Your task to perform on an android device: Open calendar and show me the third week of next month Image 0: 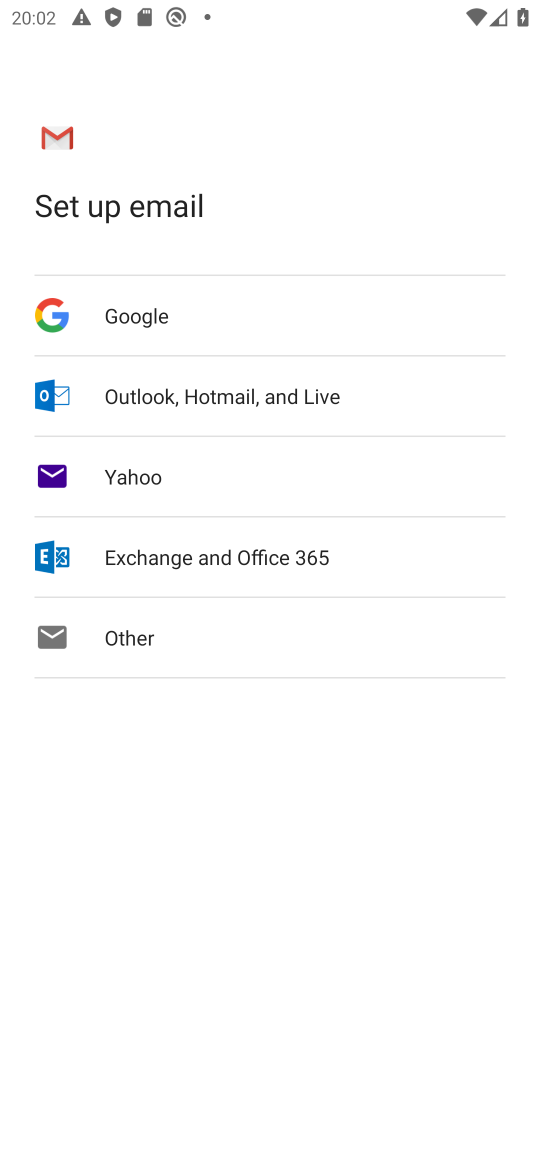
Step 0: press home button
Your task to perform on an android device: Open calendar and show me the third week of next month Image 1: 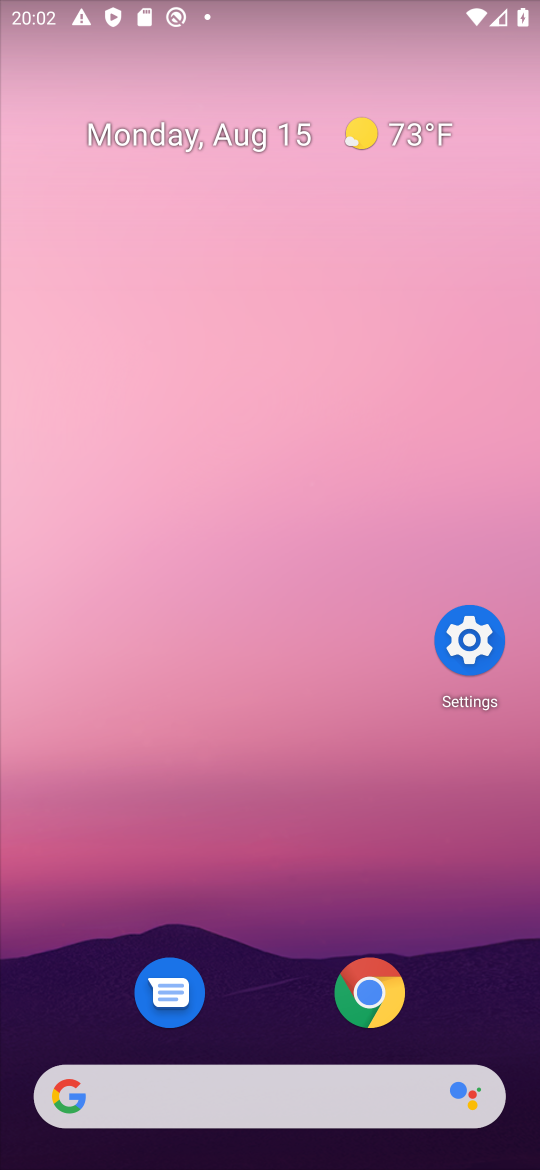
Step 1: drag from (297, 1071) to (428, 241)
Your task to perform on an android device: Open calendar and show me the third week of next month Image 2: 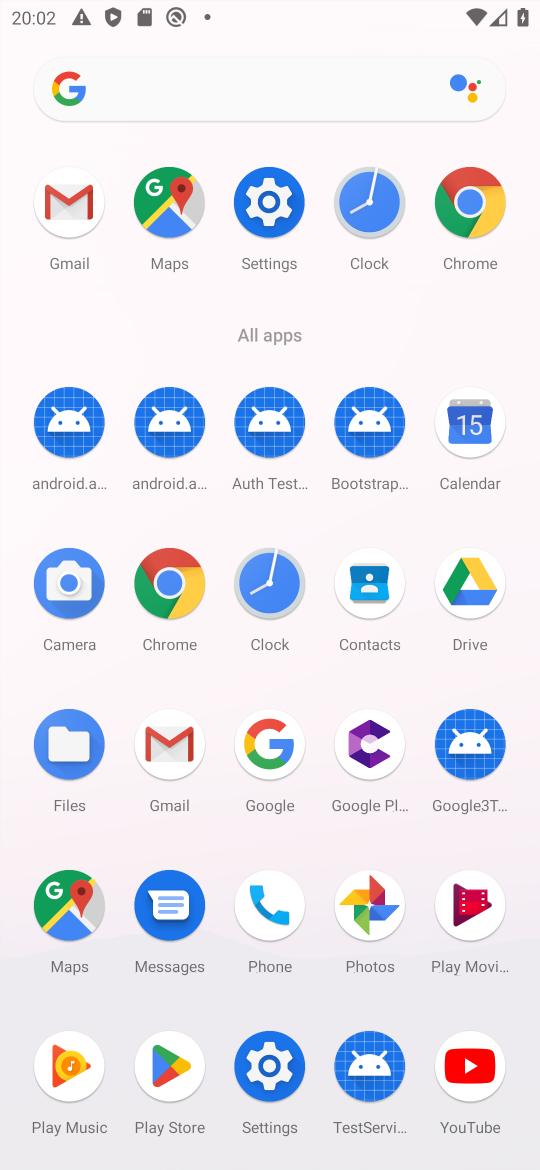
Step 2: click (468, 425)
Your task to perform on an android device: Open calendar and show me the third week of next month Image 3: 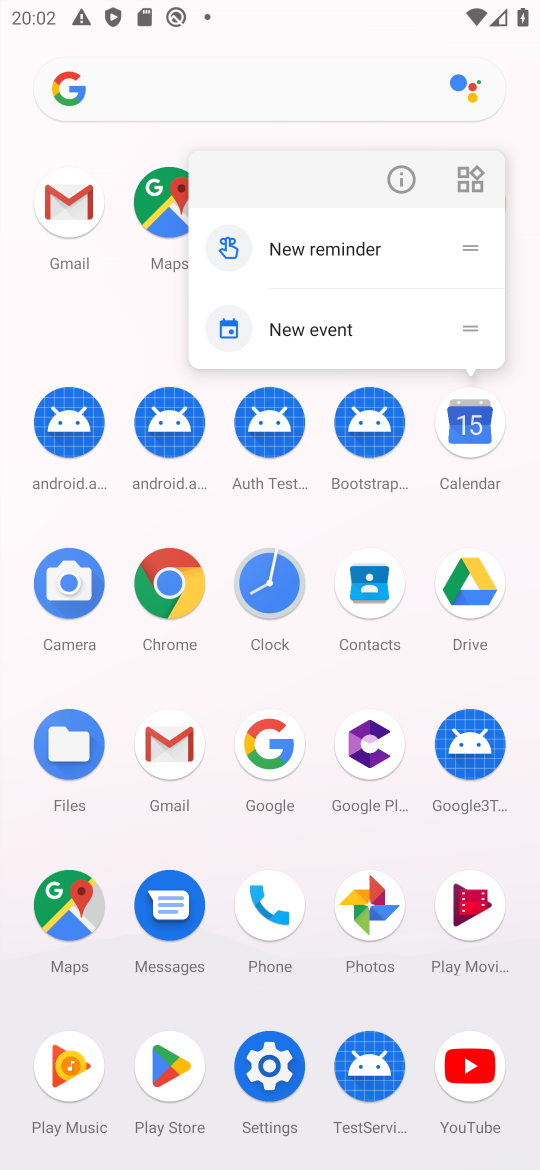
Step 3: click (468, 421)
Your task to perform on an android device: Open calendar and show me the third week of next month Image 4: 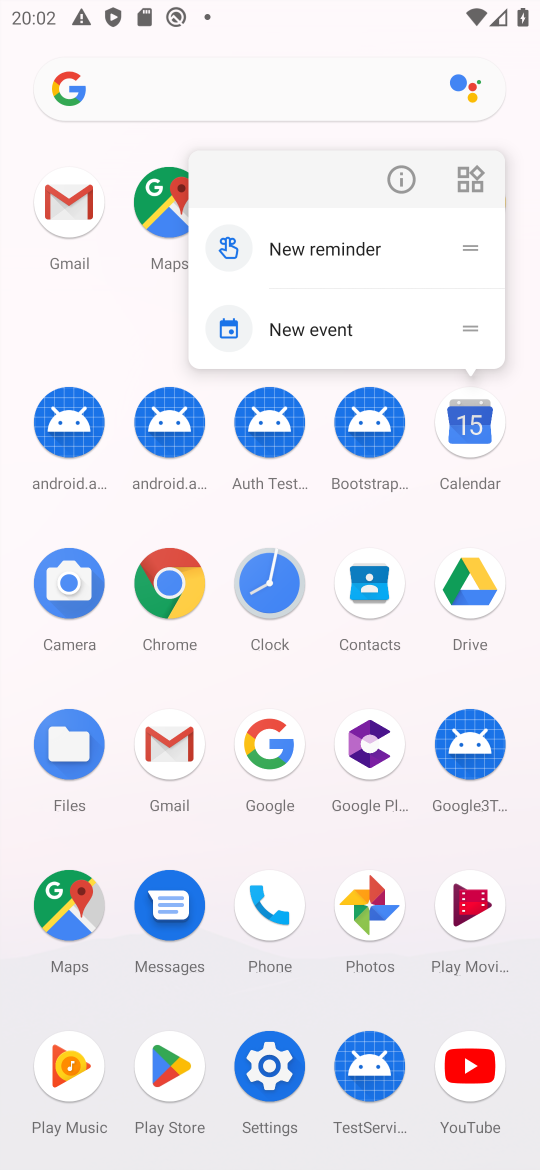
Step 4: click (468, 424)
Your task to perform on an android device: Open calendar and show me the third week of next month Image 5: 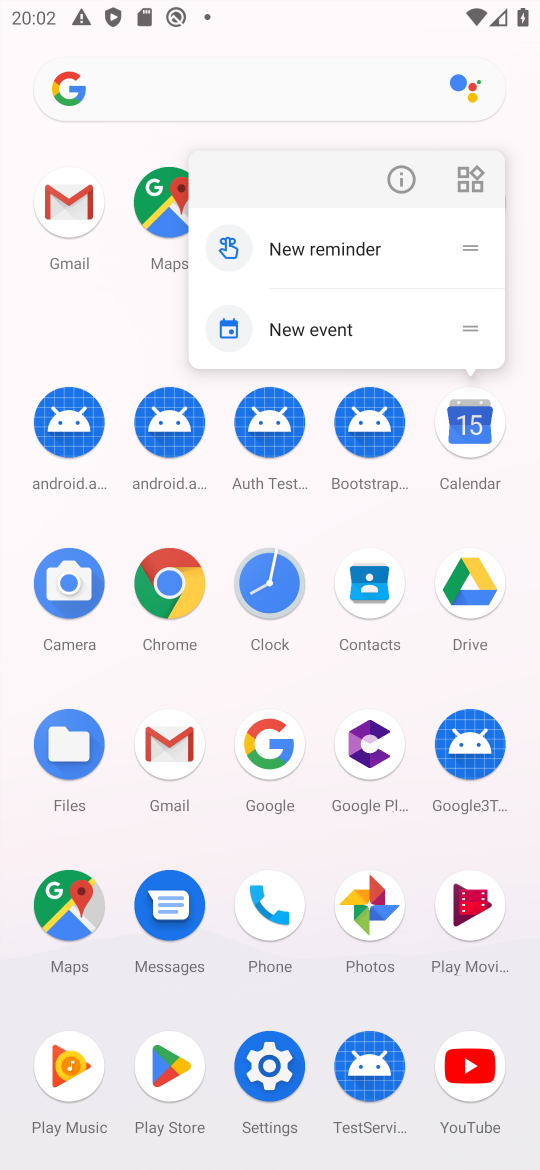
Step 5: click (481, 430)
Your task to perform on an android device: Open calendar and show me the third week of next month Image 6: 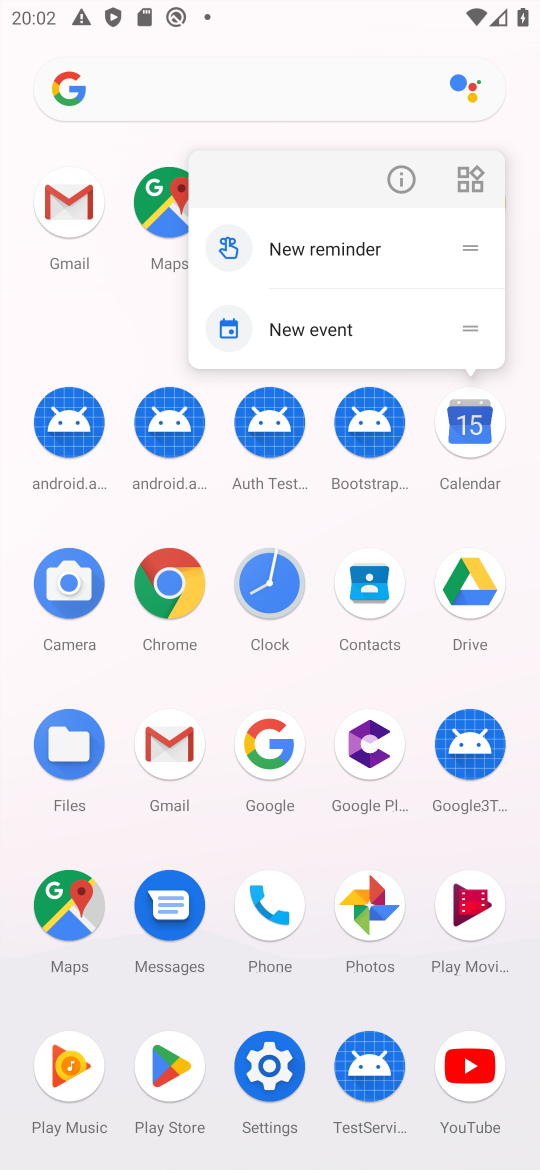
Step 6: click (466, 416)
Your task to perform on an android device: Open calendar and show me the third week of next month Image 7: 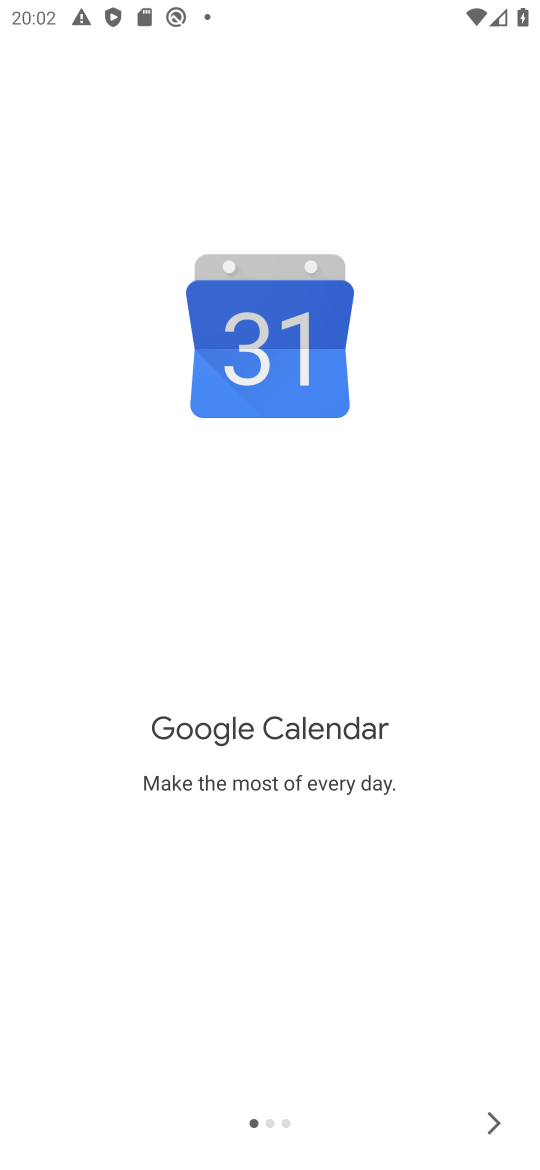
Step 7: click (494, 1118)
Your task to perform on an android device: Open calendar and show me the third week of next month Image 8: 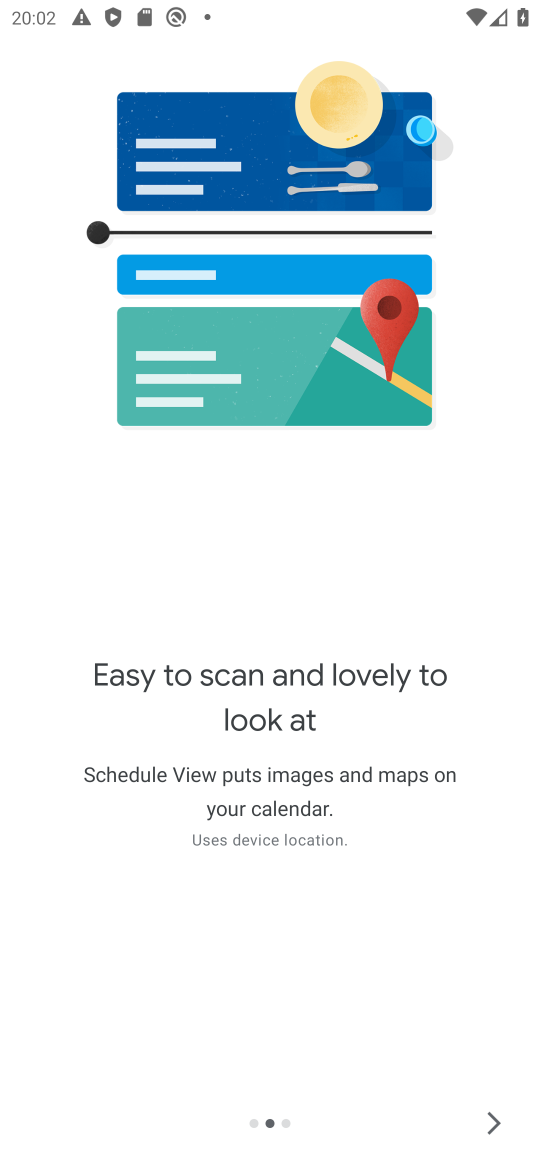
Step 8: click (494, 1118)
Your task to perform on an android device: Open calendar and show me the third week of next month Image 9: 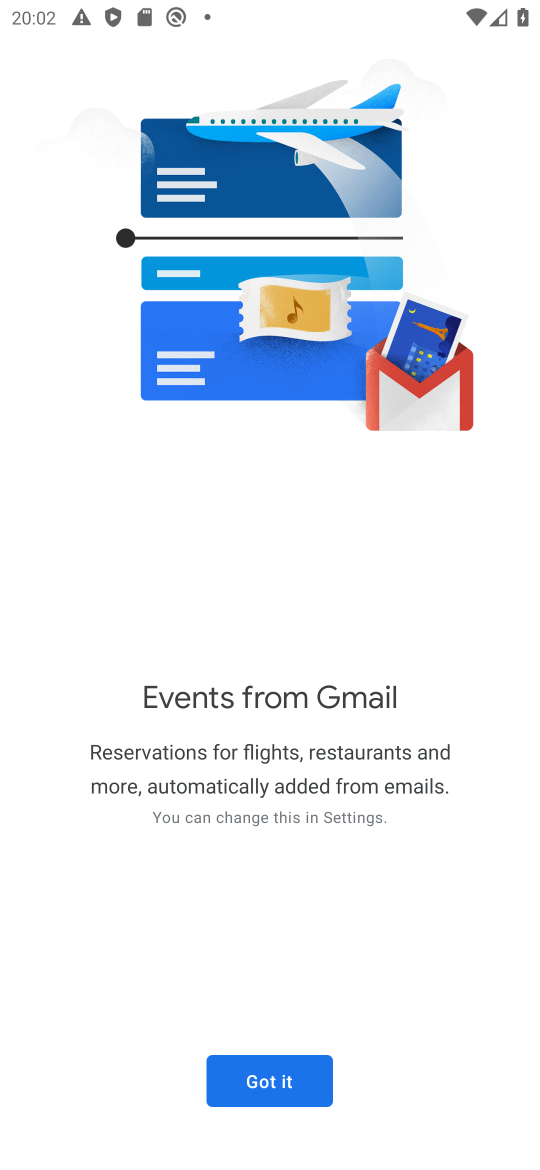
Step 9: click (265, 1075)
Your task to perform on an android device: Open calendar and show me the third week of next month Image 10: 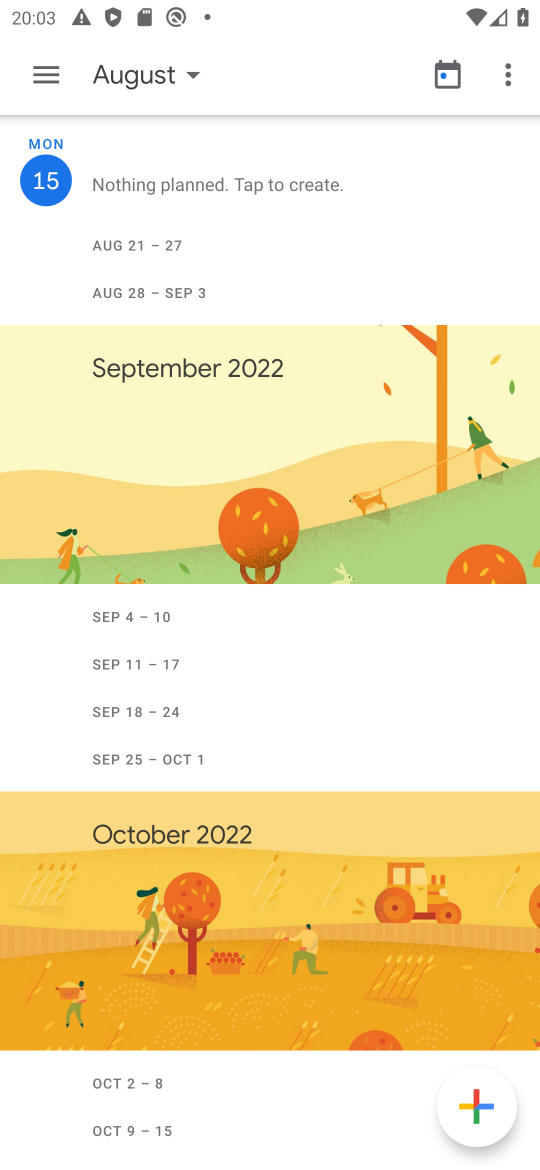
Step 10: drag from (161, 711) to (223, 343)
Your task to perform on an android device: Open calendar and show me the third week of next month Image 11: 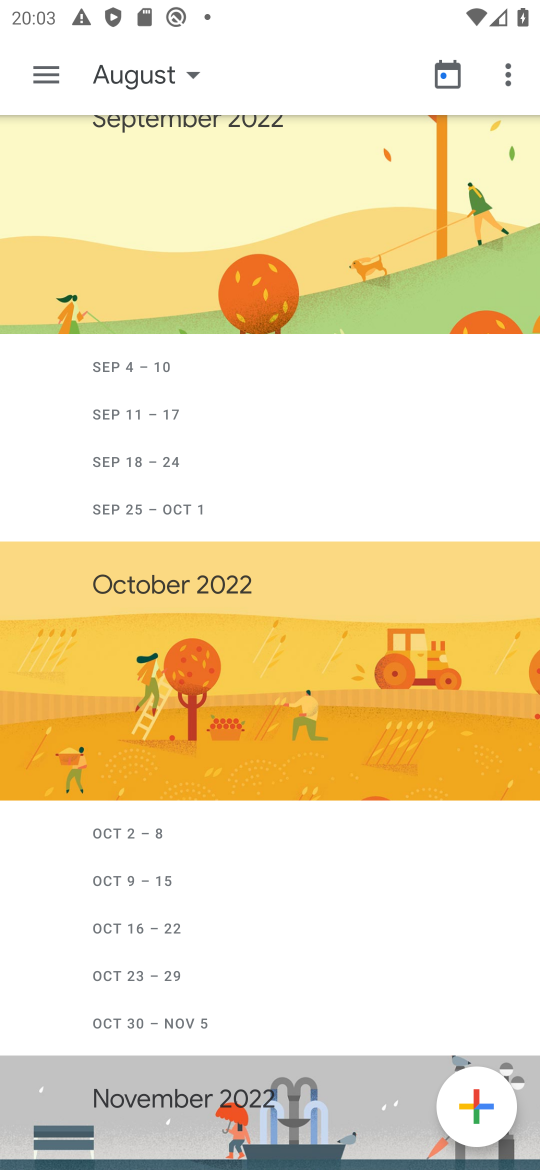
Step 11: drag from (252, 300) to (289, 175)
Your task to perform on an android device: Open calendar and show me the third week of next month Image 12: 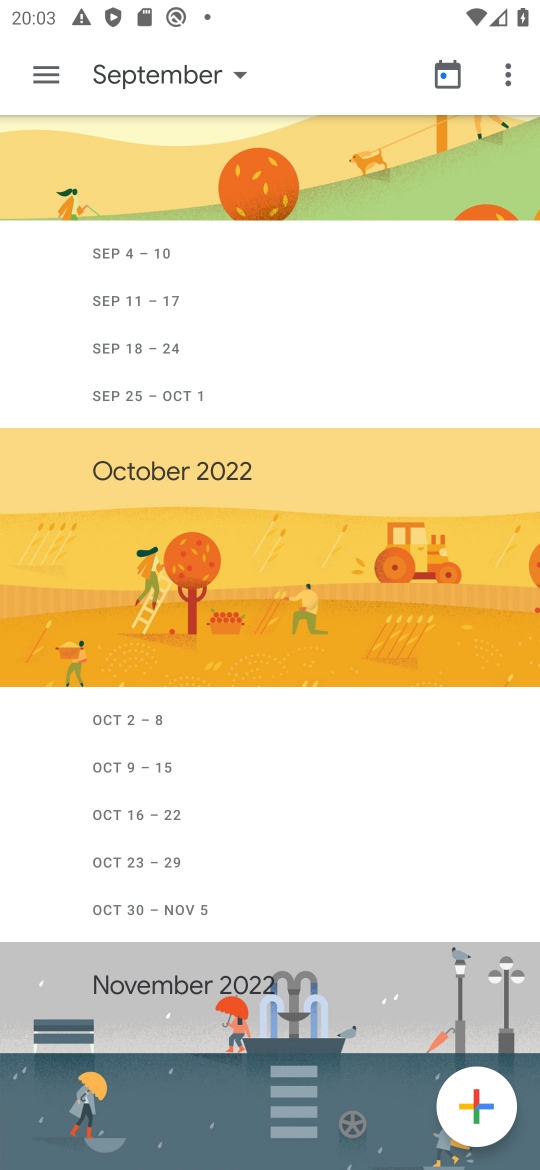
Step 12: click (143, 78)
Your task to perform on an android device: Open calendar and show me the third week of next month Image 13: 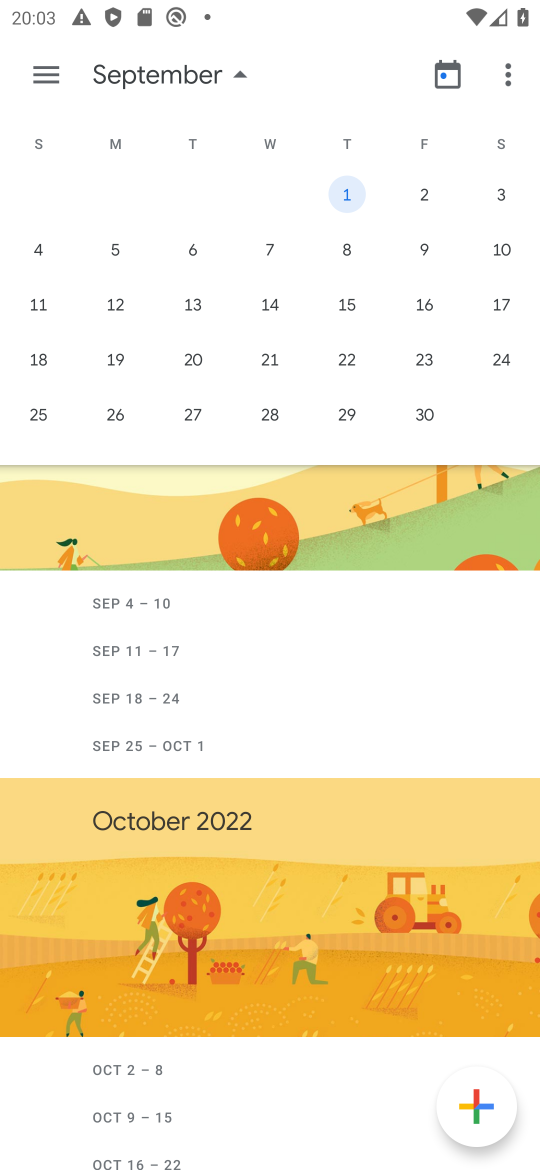
Step 13: click (49, 311)
Your task to perform on an android device: Open calendar and show me the third week of next month Image 14: 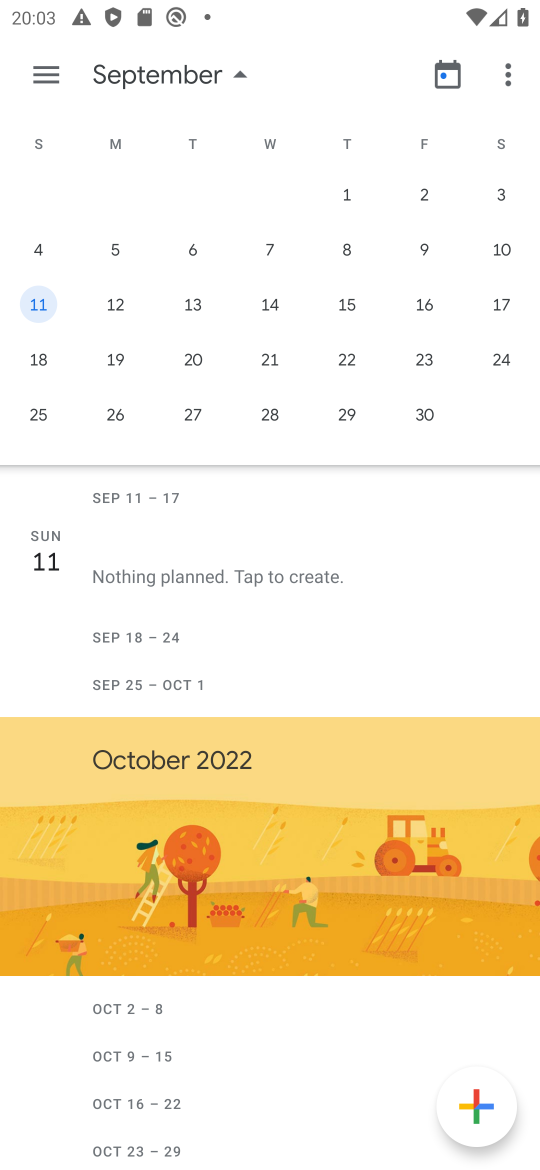
Step 14: click (48, 79)
Your task to perform on an android device: Open calendar and show me the third week of next month Image 15: 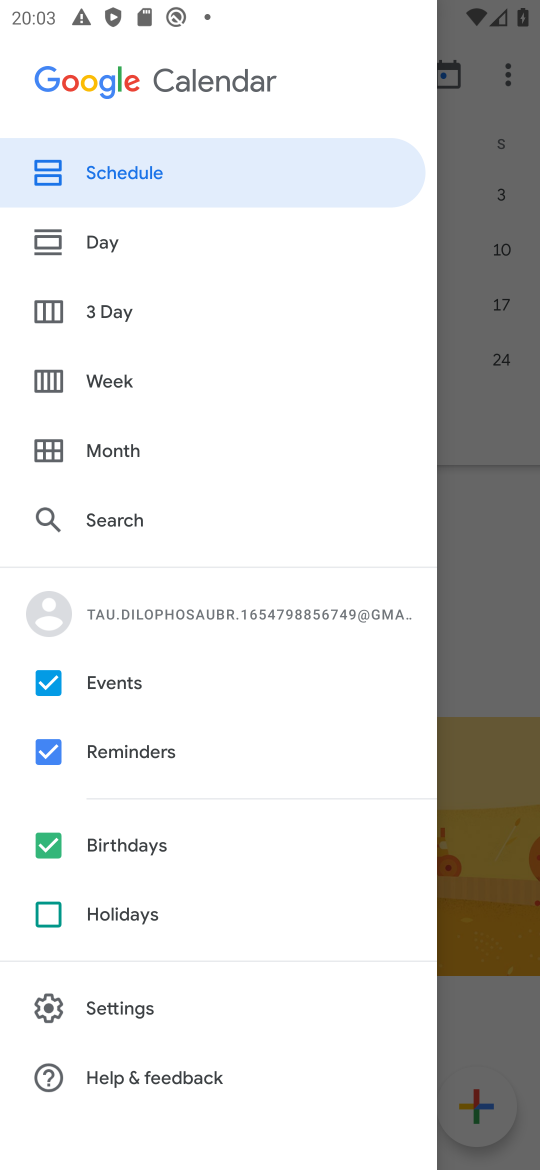
Step 15: click (117, 385)
Your task to perform on an android device: Open calendar and show me the third week of next month Image 16: 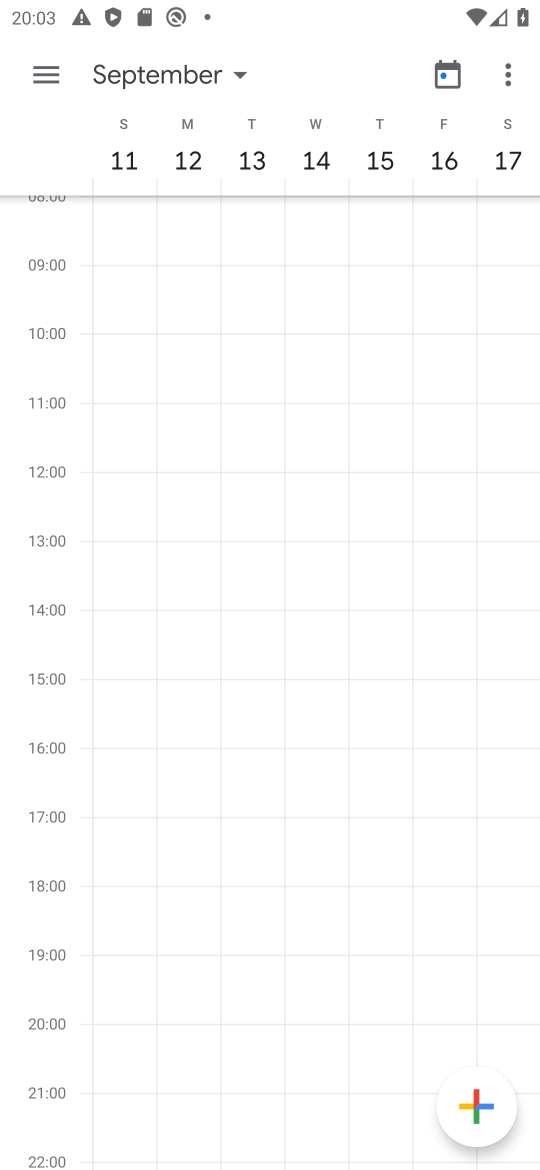
Step 16: task complete